Your task to perform on an android device: Open accessibility settings Image 0: 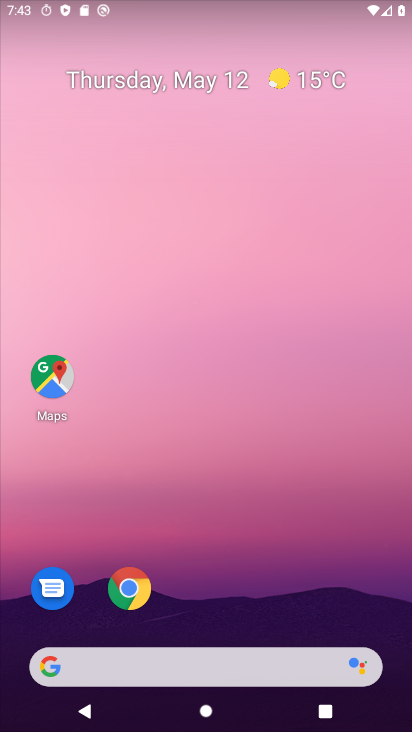
Step 0: drag from (135, 553) to (142, 320)
Your task to perform on an android device: Open accessibility settings Image 1: 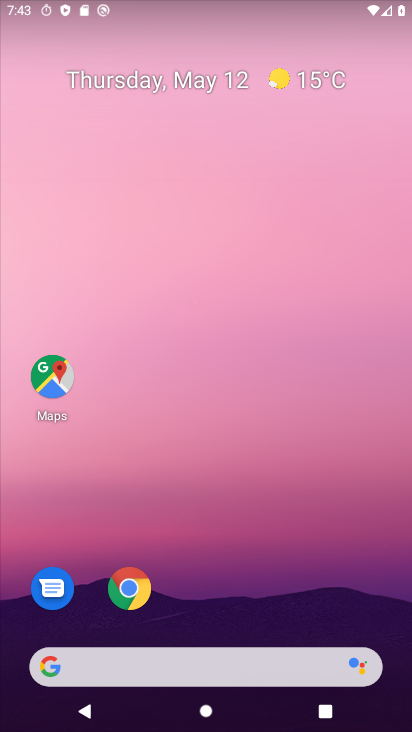
Step 1: drag from (277, 625) to (296, 234)
Your task to perform on an android device: Open accessibility settings Image 2: 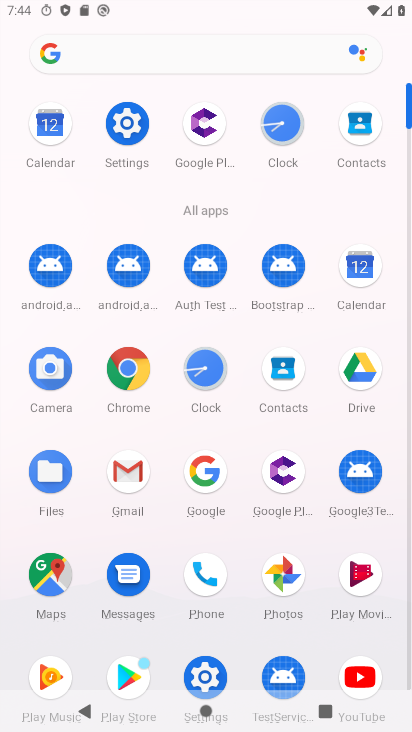
Step 2: click (211, 675)
Your task to perform on an android device: Open accessibility settings Image 3: 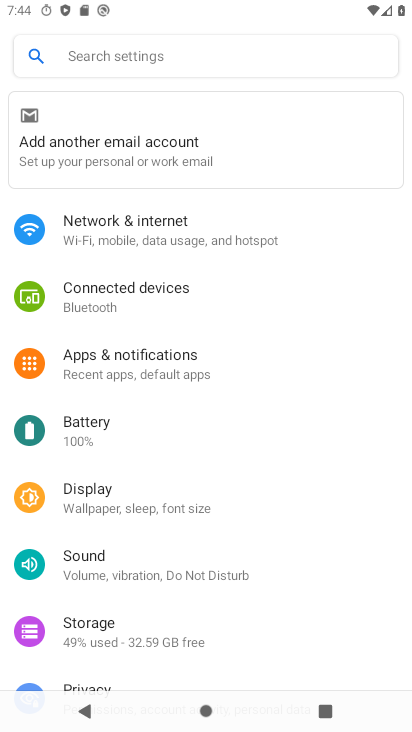
Step 3: drag from (154, 537) to (234, 235)
Your task to perform on an android device: Open accessibility settings Image 4: 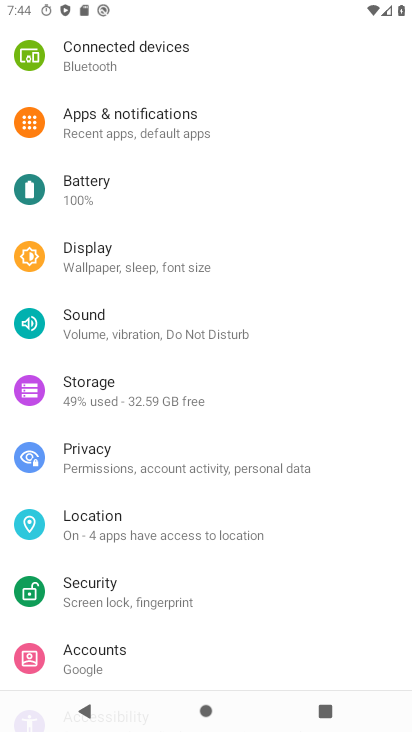
Step 4: drag from (212, 646) to (238, 391)
Your task to perform on an android device: Open accessibility settings Image 5: 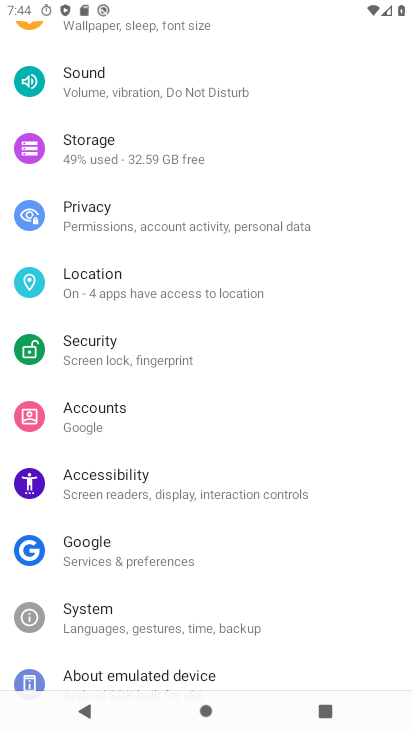
Step 5: click (113, 492)
Your task to perform on an android device: Open accessibility settings Image 6: 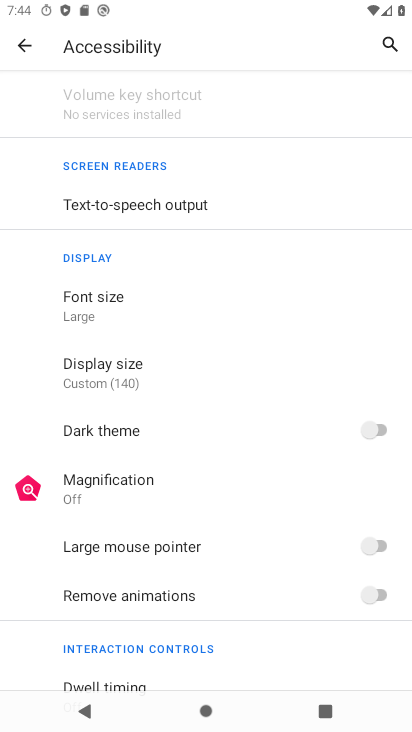
Step 6: task complete